Your task to perform on an android device: Open Google Chrome and click the shortcut for Amazon.com Image 0: 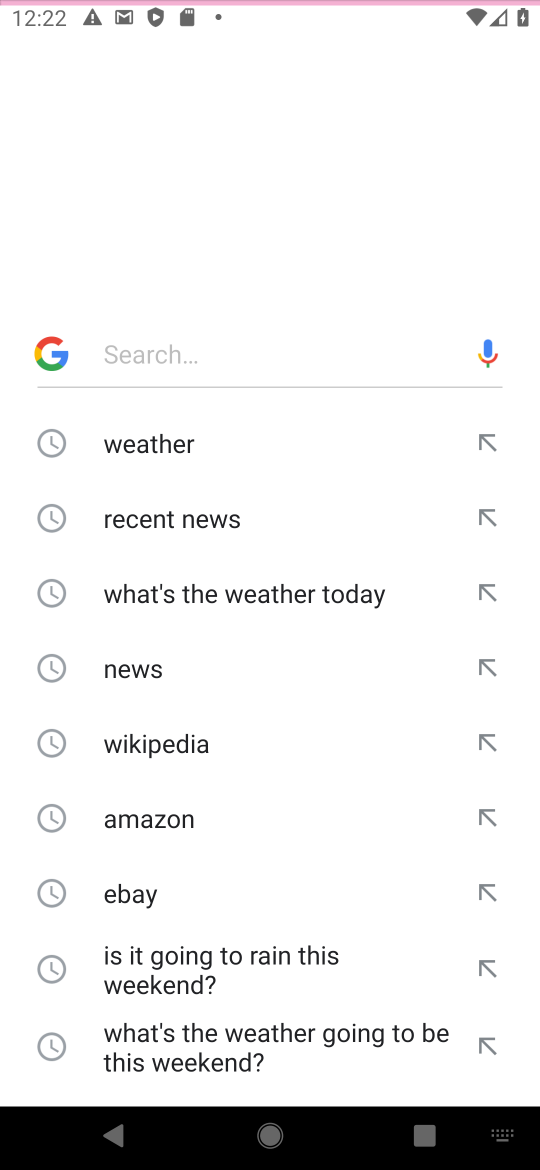
Step 0: click (264, 274)
Your task to perform on an android device: Open Google Chrome and click the shortcut for Amazon.com Image 1: 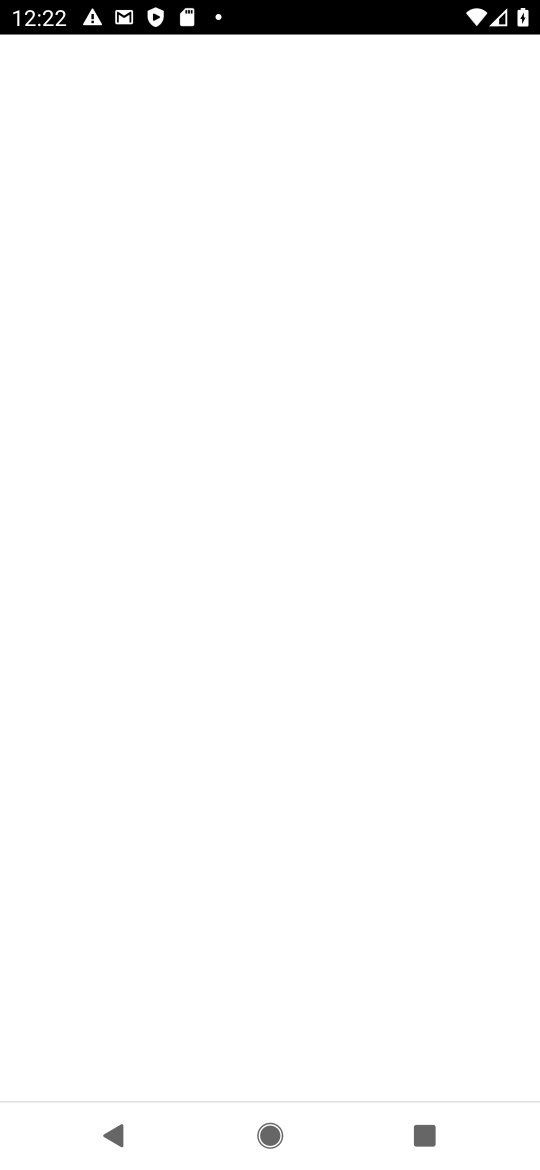
Step 1: drag from (259, 669) to (255, 557)
Your task to perform on an android device: Open Google Chrome and click the shortcut for Amazon.com Image 2: 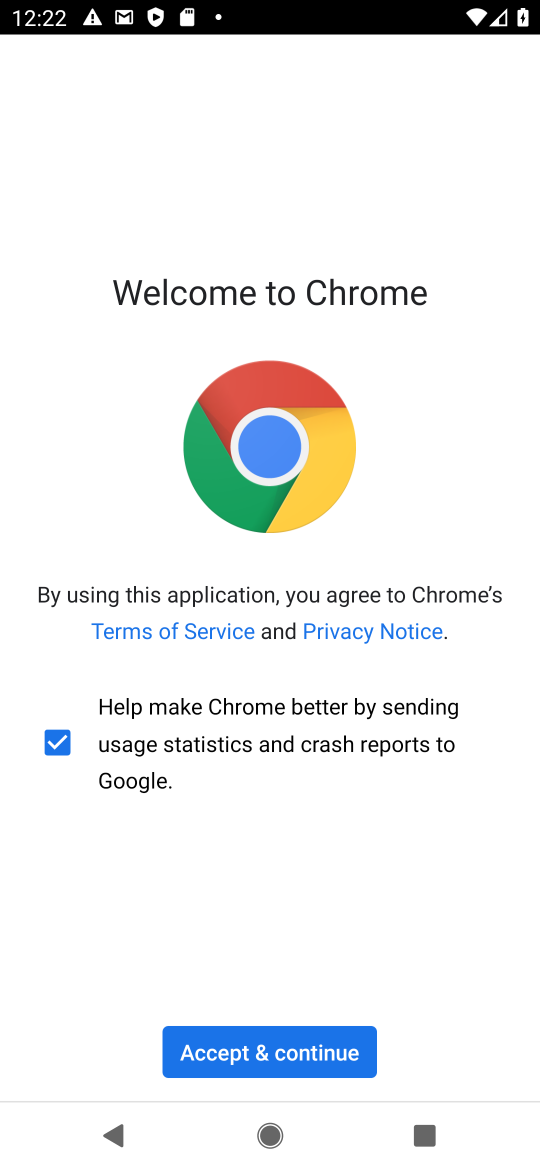
Step 2: drag from (255, 867) to (249, 434)
Your task to perform on an android device: Open Google Chrome and click the shortcut for Amazon.com Image 3: 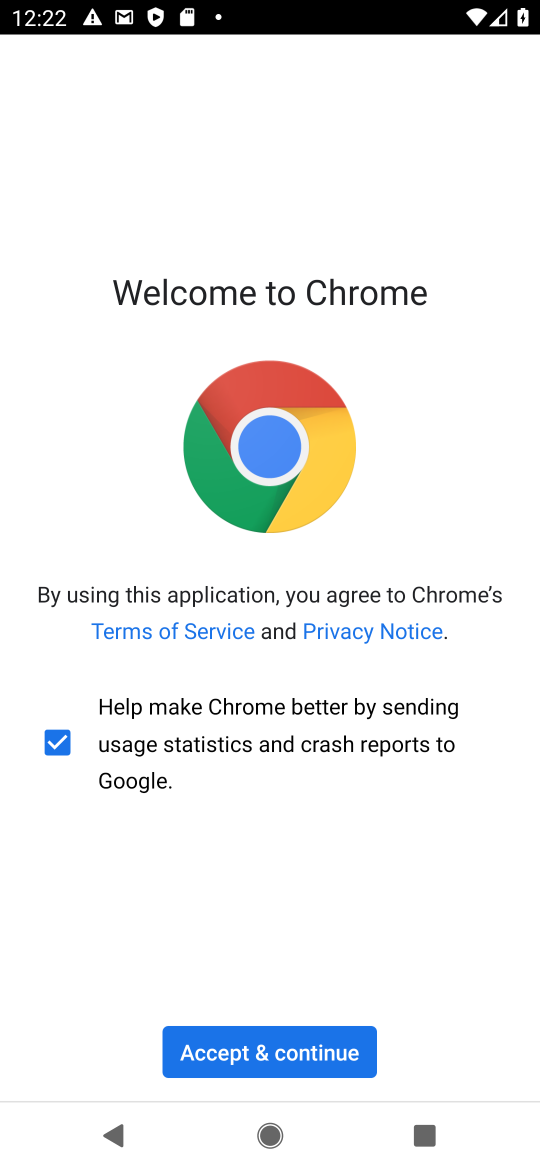
Step 3: press home button
Your task to perform on an android device: Open Google Chrome and click the shortcut for Amazon.com Image 4: 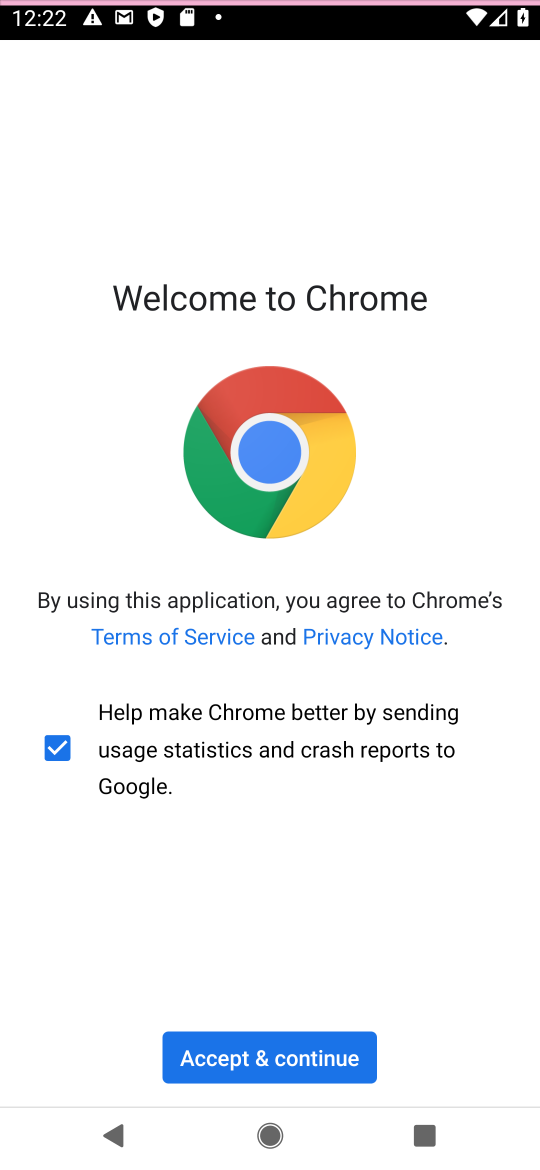
Step 4: drag from (257, 795) to (291, 202)
Your task to perform on an android device: Open Google Chrome and click the shortcut for Amazon.com Image 5: 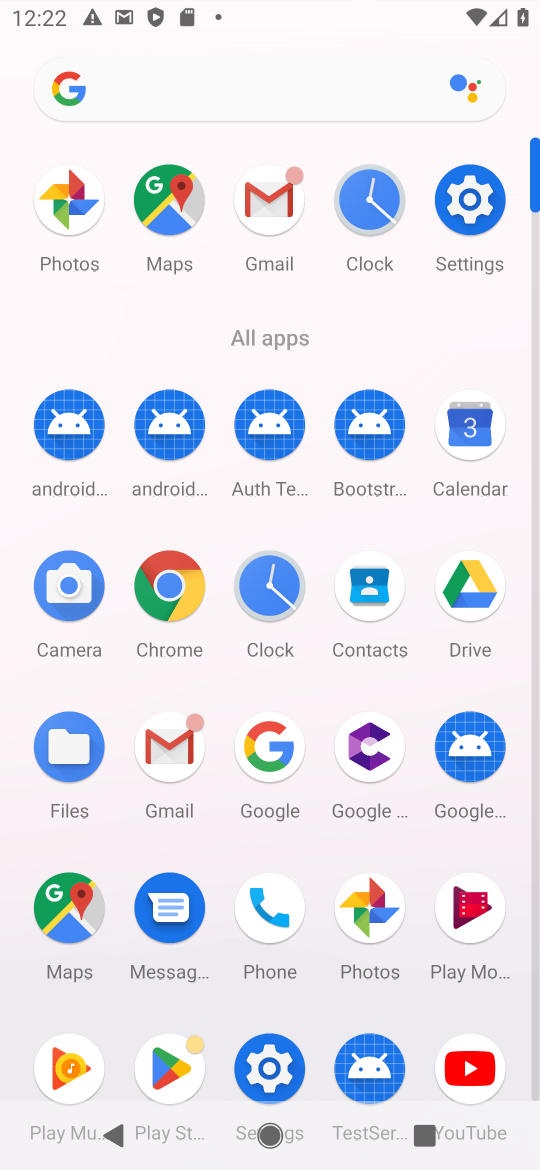
Step 5: click (162, 589)
Your task to perform on an android device: Open Google Chrome and click the shortcut for Amazon.com Image 6: 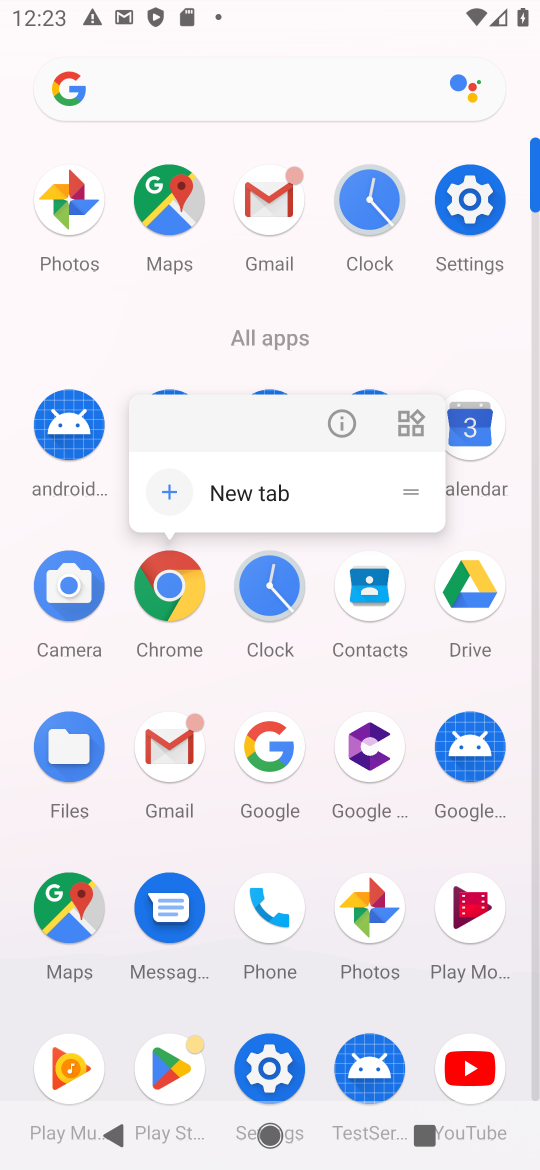
Step 6: click (341, 429)
Your task to perform on an android device: Open Google Chrome and click the shortcut for Amazon.com Image 7: 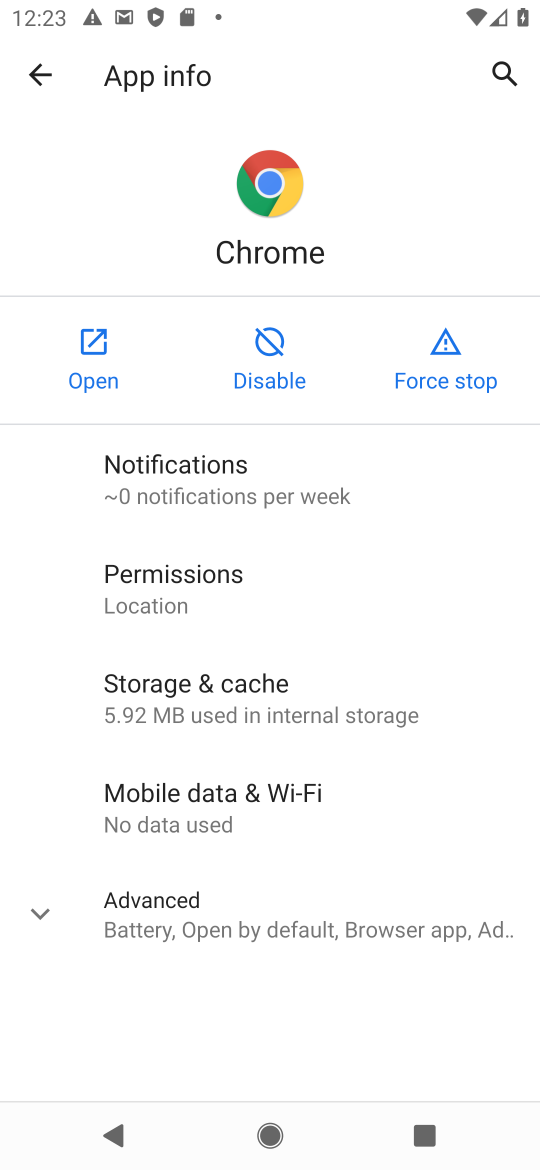
Step 7: click (112, 375)
Your task to perform on an android device: Open Google Chrome and click the shortcut for Amazon.com Image 8: 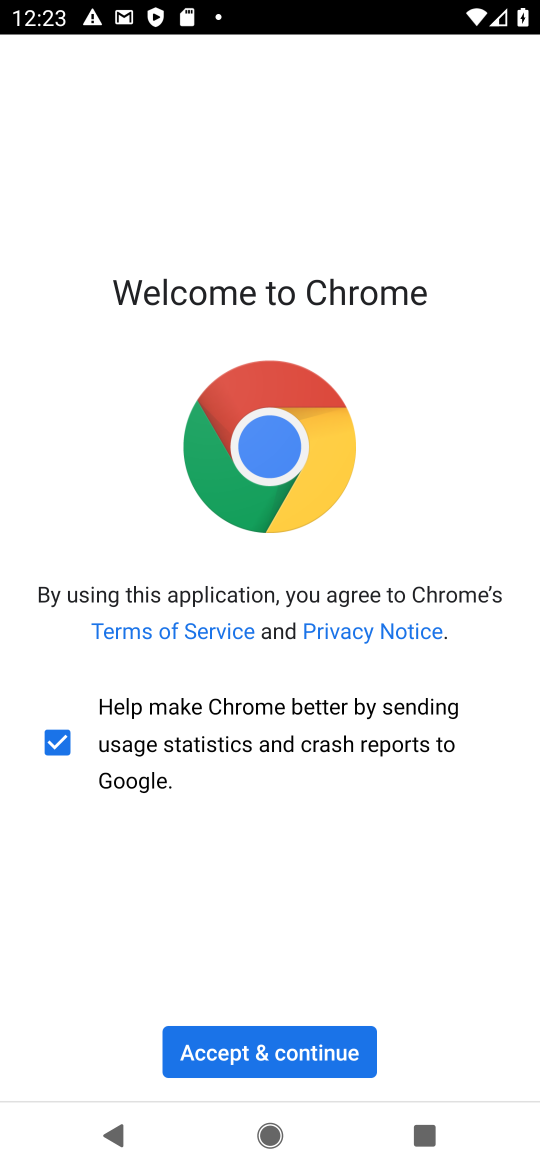
Step 8: drag from (111, 848) to (201, 396)
Your task to perform on an android device: Open Google Chrome and click the shortcut for Amazon.com Image 9: 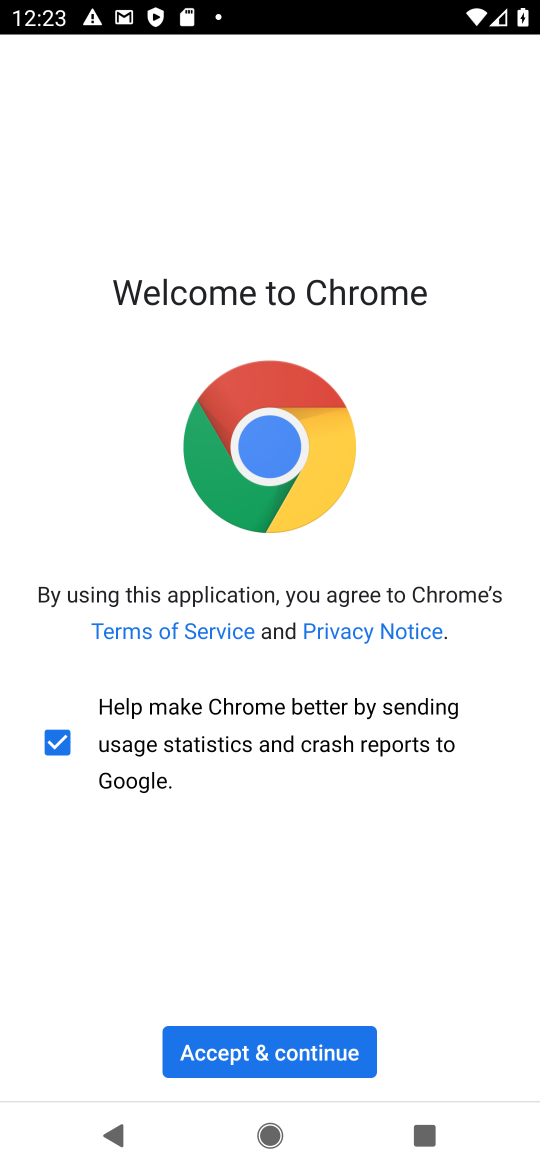
Step 9: drag from (350, 661) to (350, 70)
Your task to perform on an android device: Open Google Chrome and click the shortcut for Amazon.com Image 10: 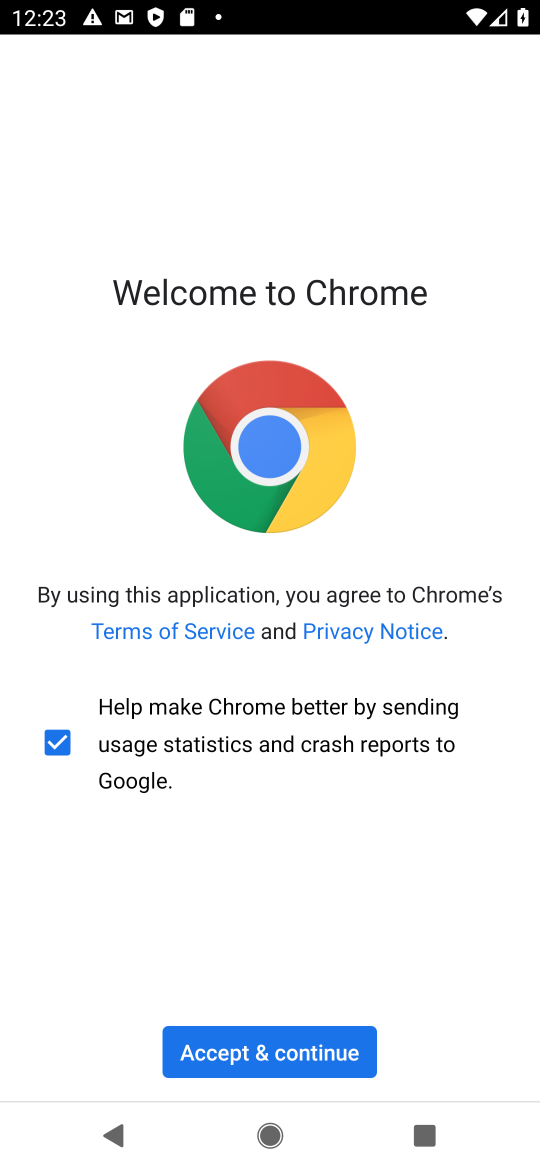
Step 10: drag from (411, 817) to (294, 246)
Your task to perform on an android device: Open Google Chrome and click the shortcut for Amazon.com Image 11: 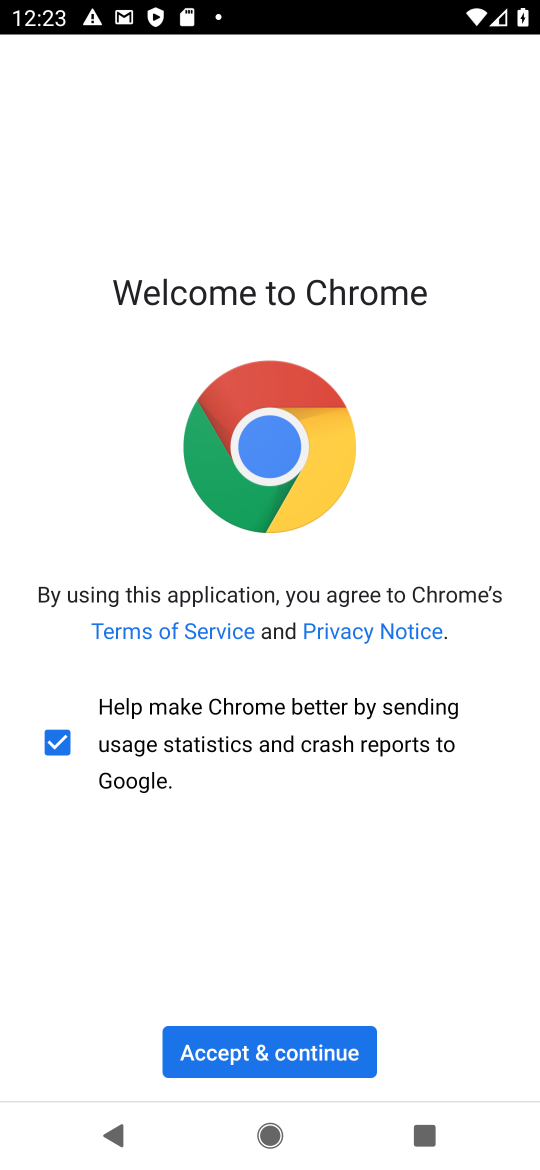
Step 11: drag from (276, 879) to (303, 539)
Your task to perform on an android device: Open Google Chrome and click the shortcut for Amazon.com Image 12: 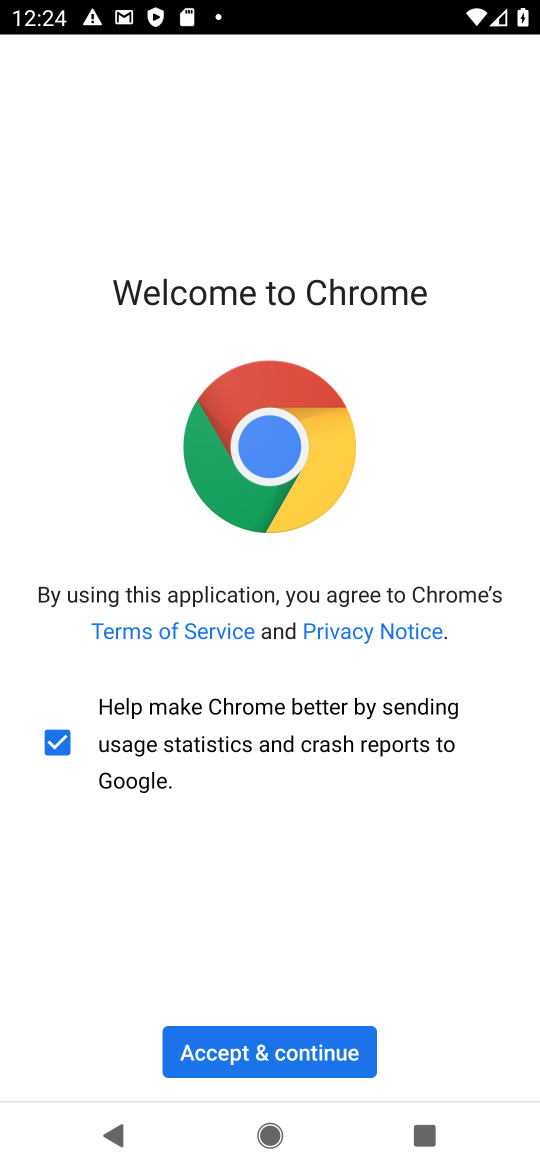
Step 12: drag from (254, 892) to (295, 555)
Your task to perform on an android device: Open Google Chrome and click the shortcut for Amazon.com Image 13: 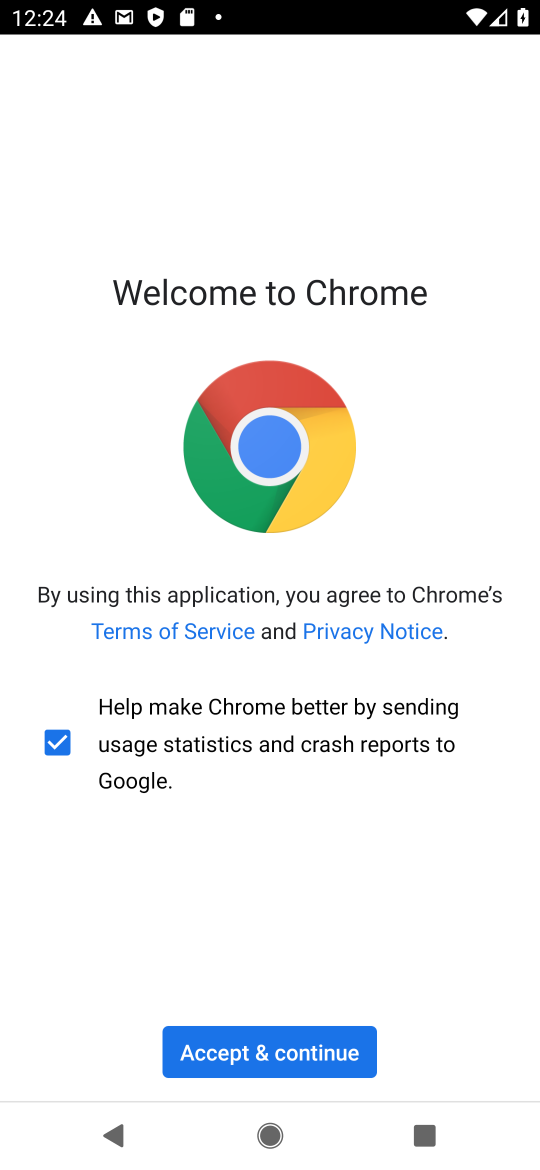
Step 13: drag from (255, 339) to (317, 899)
Your task to perform on an android device: Open Google Chrome and click the shortcut for Amazon.com Image 14: 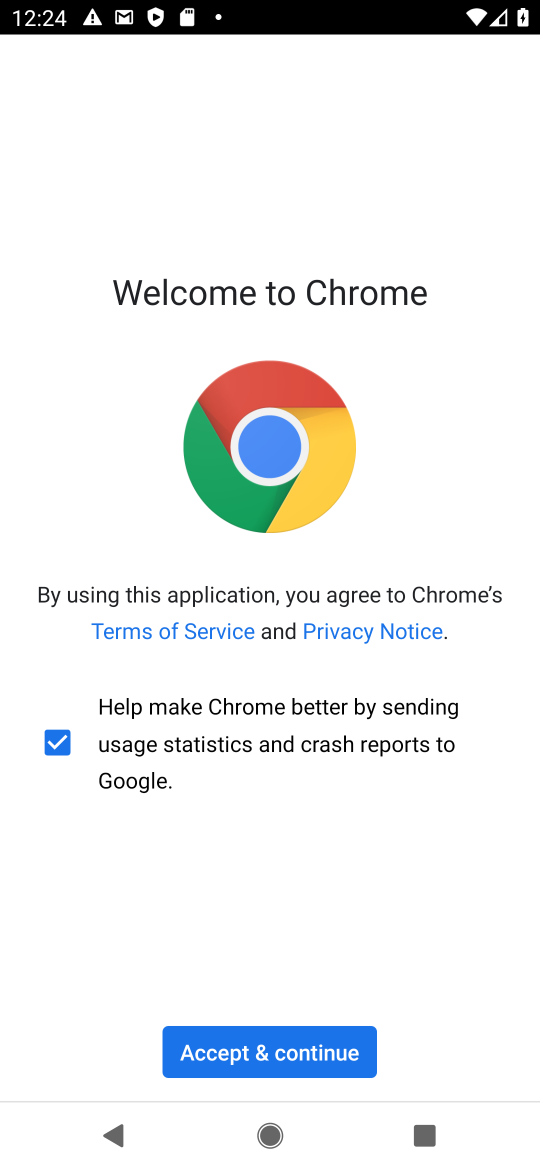
Step 14: drag from (371, 723) to (350, 345)
Your task to perform on an android device: Open Google Chrome and click the shortcut for Amazon.com Image 15: 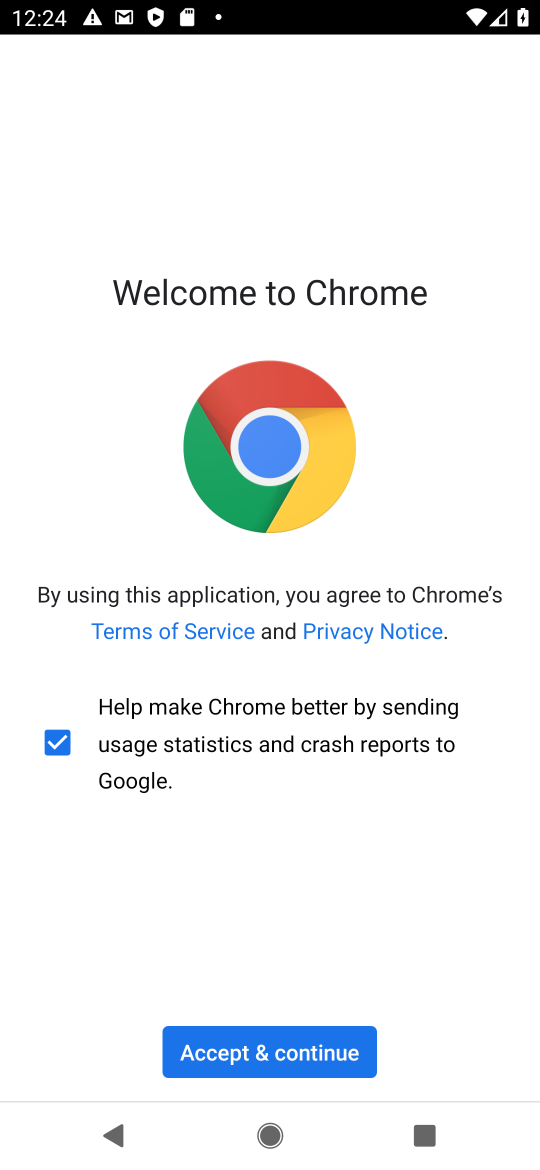
Step 15: click (259, 1044)
Your task to perform on an android device: Open Google Chrome and click the shortcut for Amazon.com Image 16: 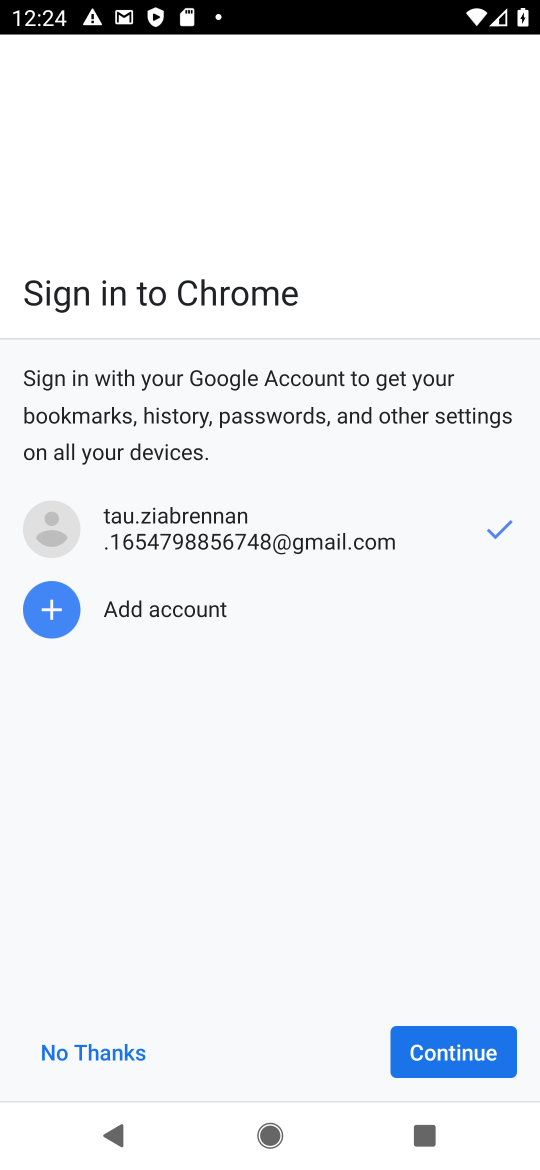
Step 16: drag from (272, 1043) to (364, 350)
Your task to perform on an android device: Open Google Chrome and click the shortcut for Amazon.com Image 17: 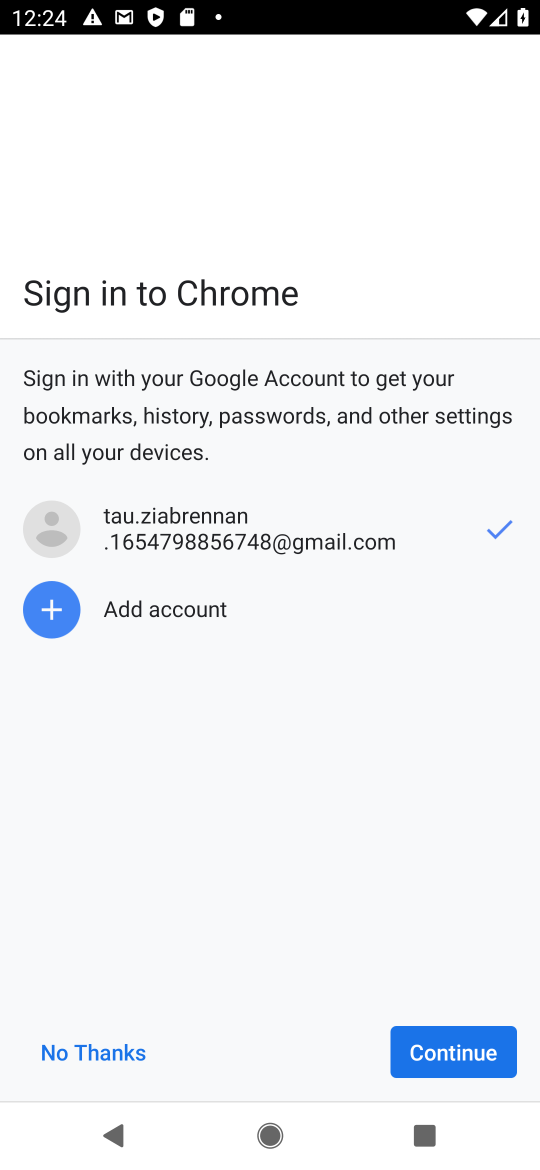
Step 17: drag from (211, 423) to (188, 260)
Your task to perform on an android device: Open Google Chrome and click the shortcut for Amazon.com Image 18: 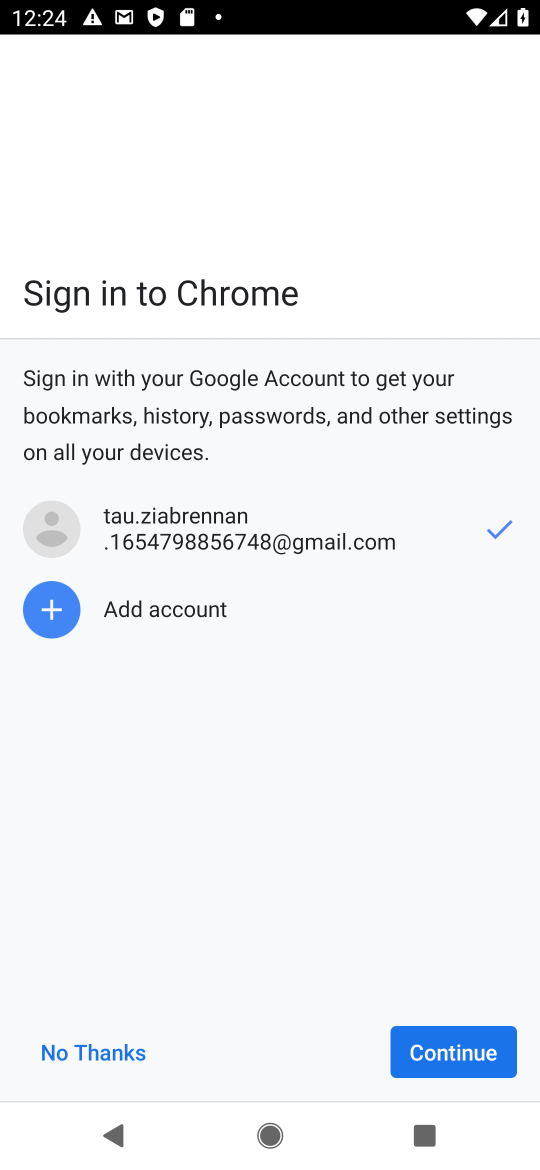
Step 18: drag from (328, 1032) to (203, 179)
Your task to perform on an android device: Open Google Chrome and click the shortcut for Amazon.com Image 19: 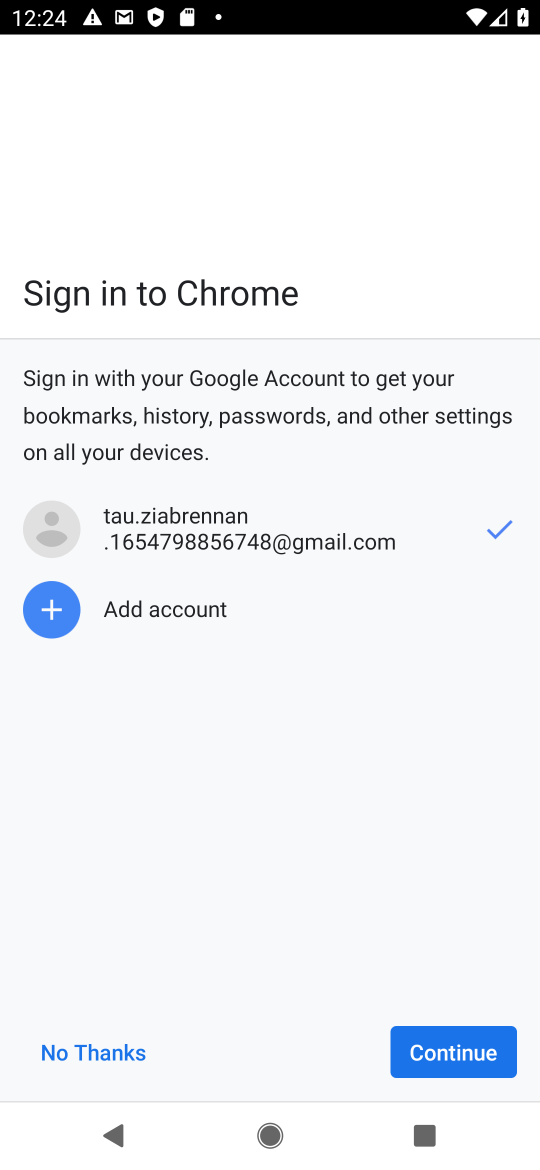
Step 19: drag from (189, 896) to (276, 250)
Your task to perform on an android device: Open Google Chrome and click the shortcut for Amazon.com Image 20: 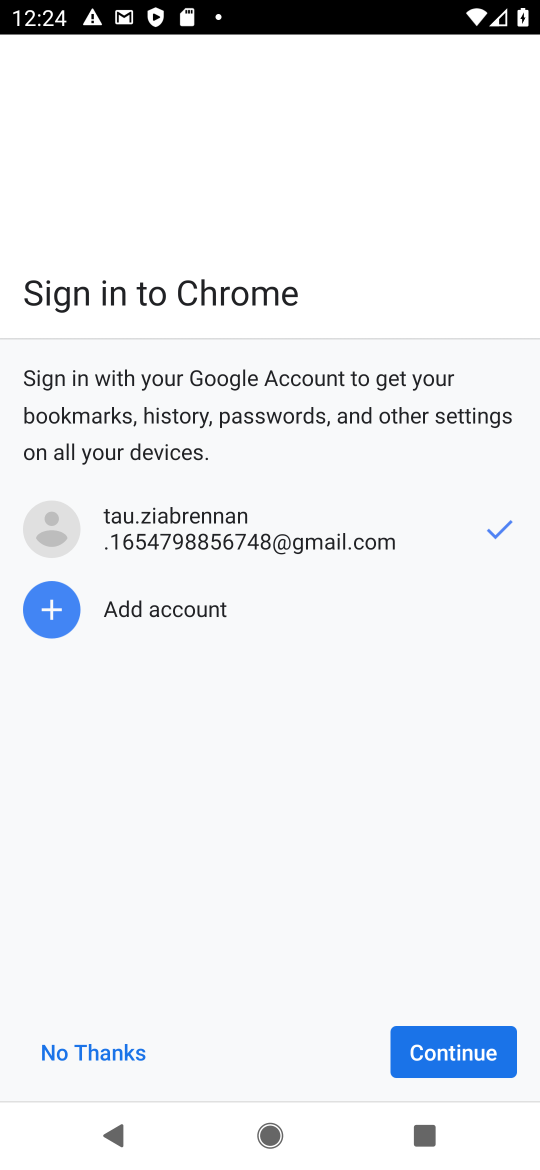
Step 20: drag from (291, 464) to (366, 1010)
Your task to perform on an android device: Open Google Chrome and click the shortcut for Amazon.com Image 21: 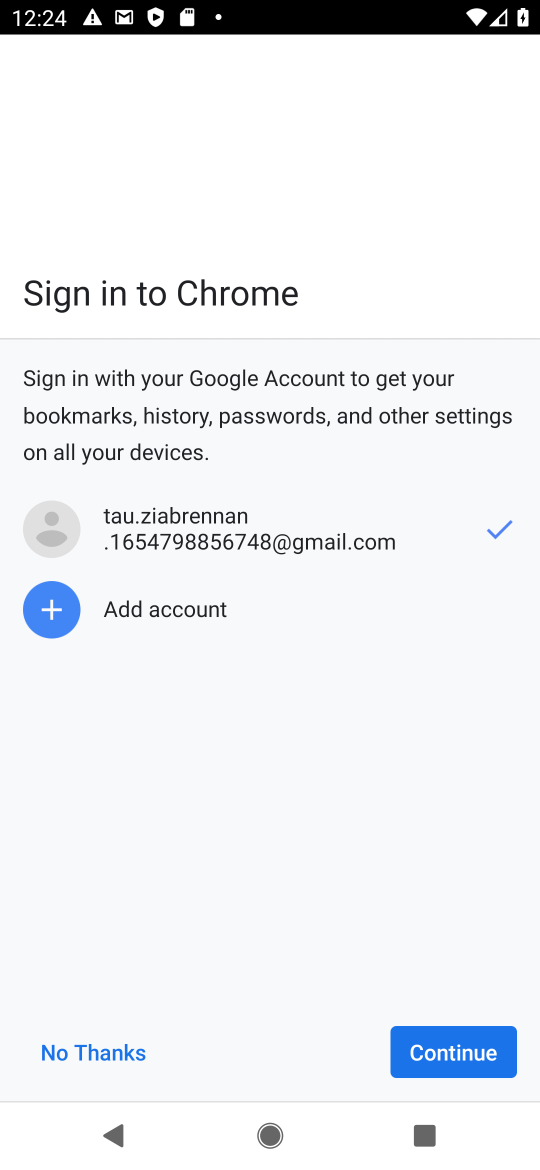
Step 21: drag from (375, 1041) to (239, 221)
Your task to perform on an android device: Open Google Chrome and click the shortcut for Amazon.com Image 22: 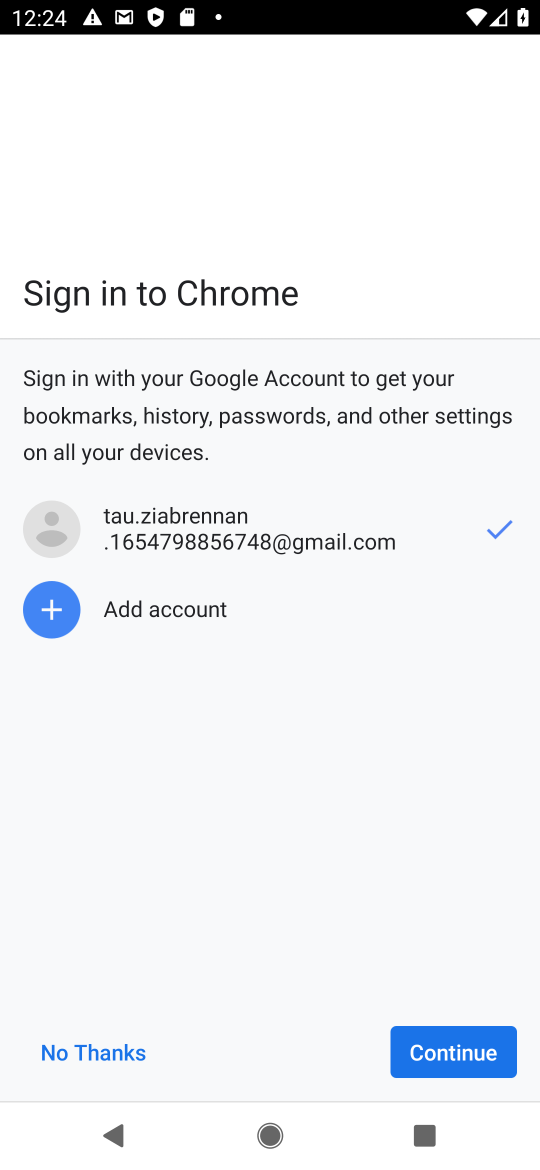
Step 22: click (446, 1045)
Your task to perform on an android device: Open Google Chrome and click the shortcut for Amazon.com Image 23: 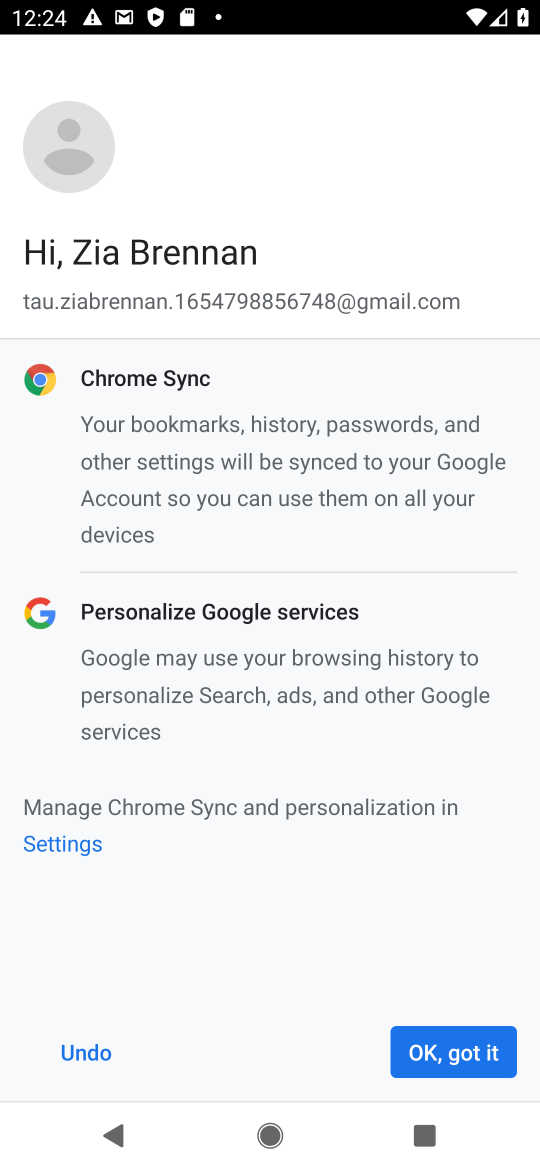
Step 23: click (447, 1043)
Your task to perform on an android device: Open Google Chrome and click the shortcut for Amazon.com Image 24: 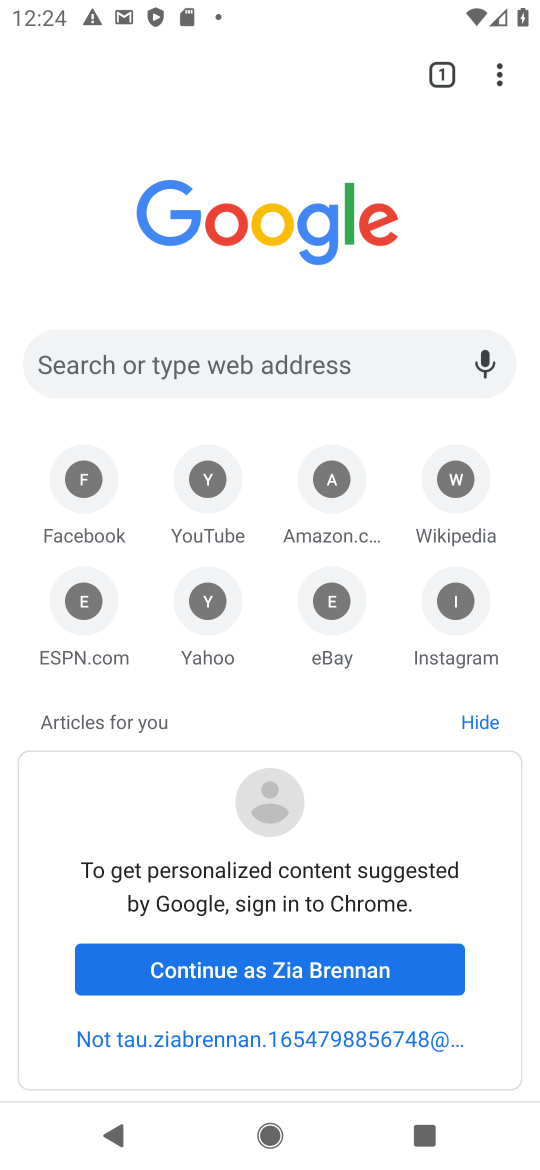
Step 24: drag from (286, 997) to (260, 460)
Your task to perform on an android device: Open Google Chrome and click the shortcut for Amazon.com Image 25: 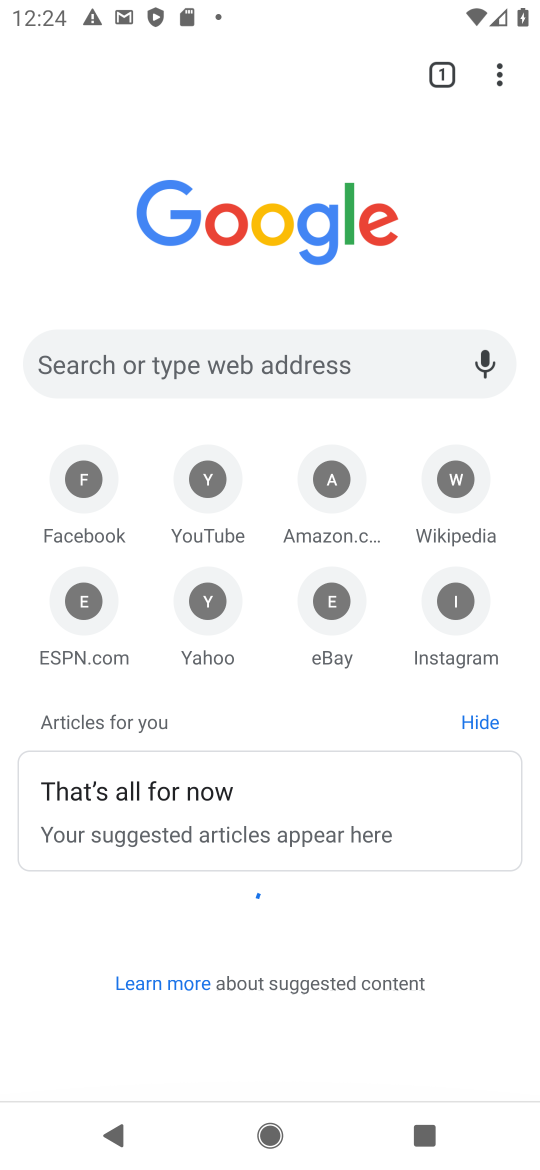
Step 25: drag from (311, 585) to (377, 1110)
Your task to perform on an android device: Open Google Chrome and click the shortcut for Amazon.com Image 26: 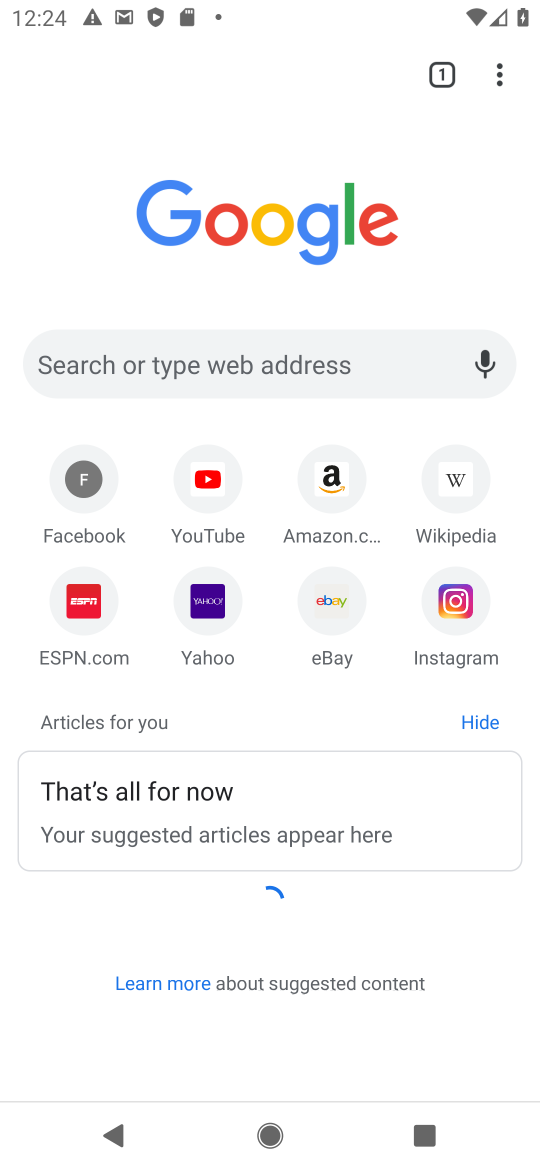
Step 26: drag from (255, 785) to (272, 489)
Your task to perform on an android device: Open Google Chrome and click the shortcut for Amazon.com Image 27: 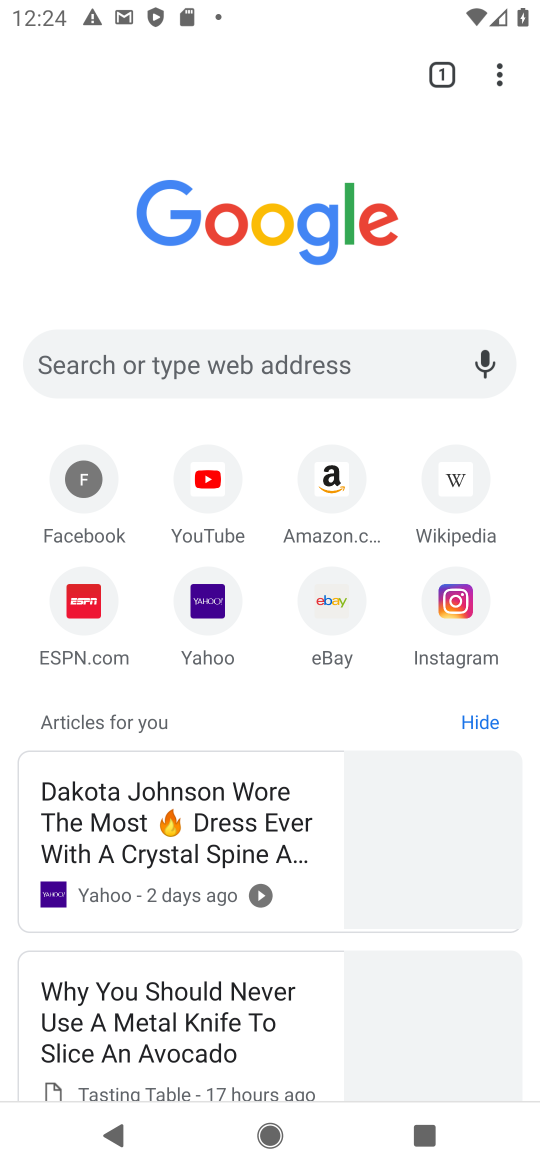
Step 27: drag from (259, 689) to (275, 476)
Your task to perform on an android device: Open Google Chrome and click the shortcut for Amazon.com Image 28: 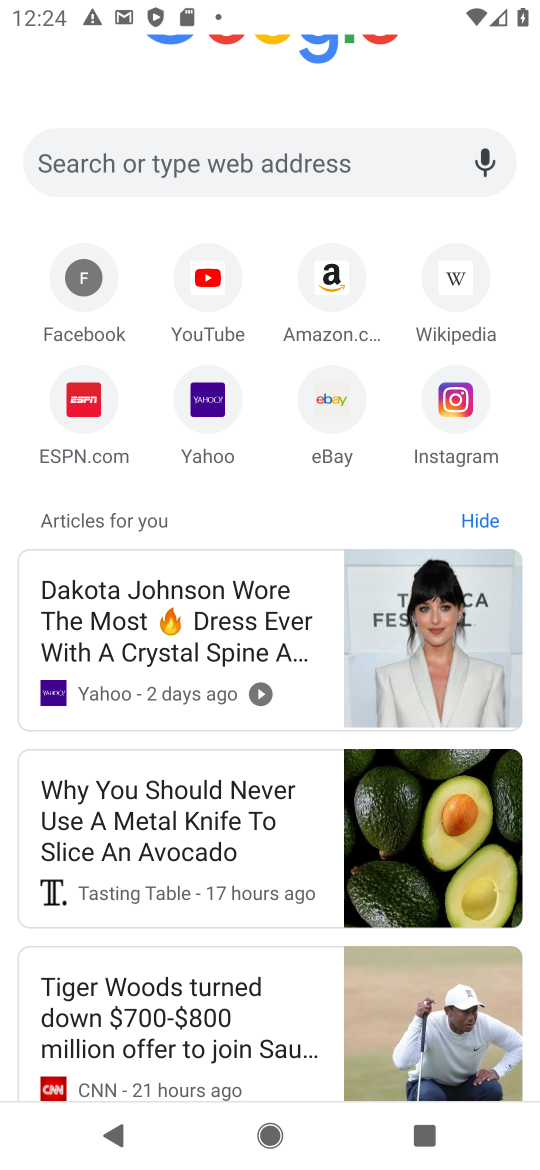
Step 28: drag from (279, 855) to (329, 484)
Your task to perform on an android device: Open Google Chrome and click the shortcut for Amazon.com Image 29: 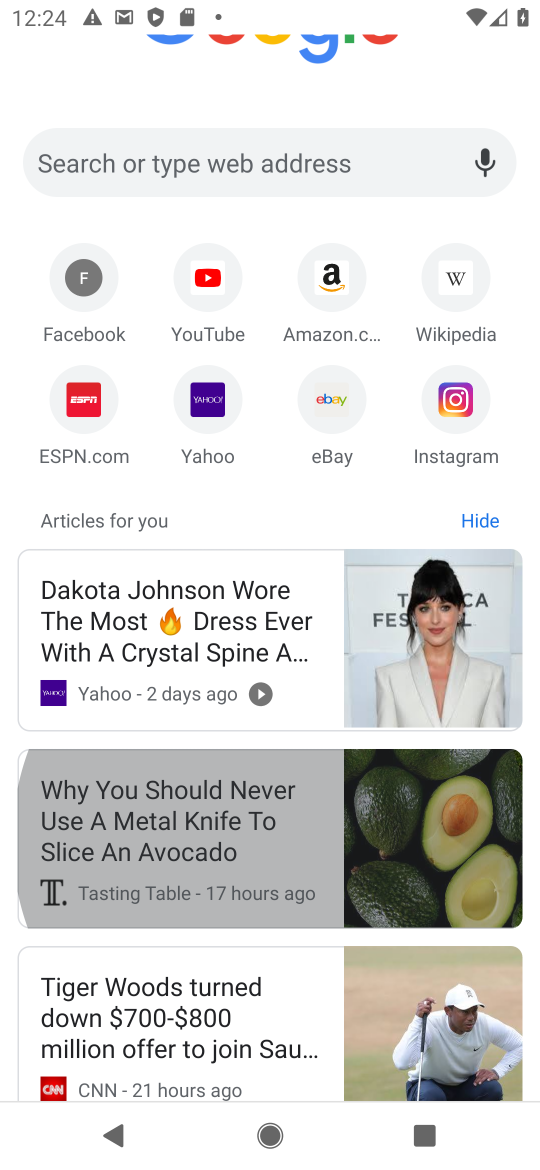
Step 29: drag from (313, 397) to (332, 1166)
Your task to perform on an android device: Open Google Chrome and click the shortcut for Amazon.com Image 30: 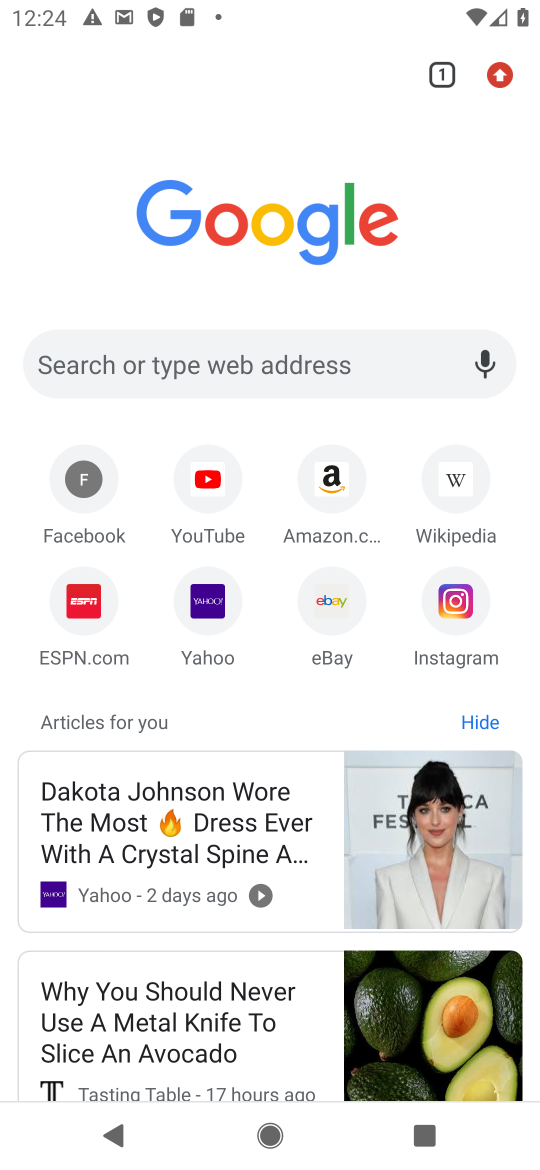
Step 30: click (319, 478)
Your task to perform on an android device: Open Google Chrome and click the shortcut for Amazon.com Image 31: 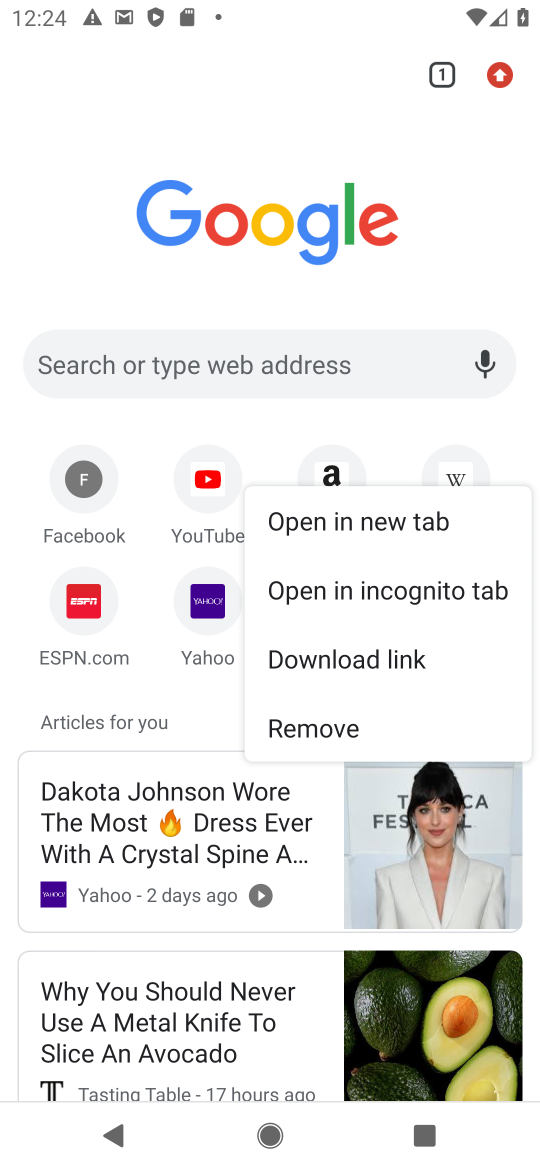
Step 31: click (311, 477)
Your task to perform on an android device: Open Google Chrome and click the shortcut for Amazon.com Image 32: 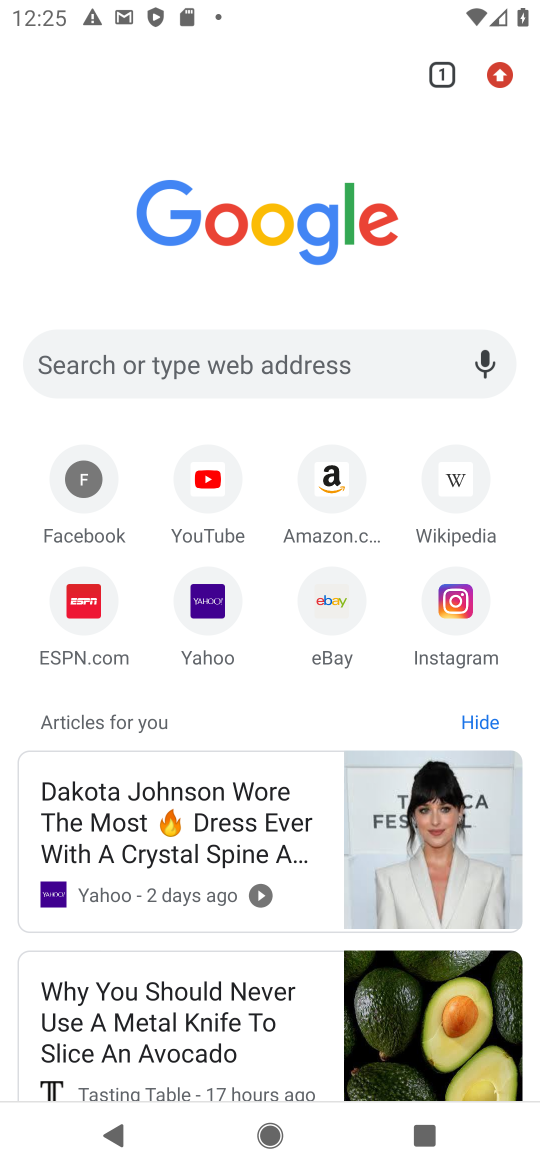
Step 32: click (351, 469)
Your task to perform on an android device: Open Google Chrome and click the shortcut for Amazon.com Image 33: 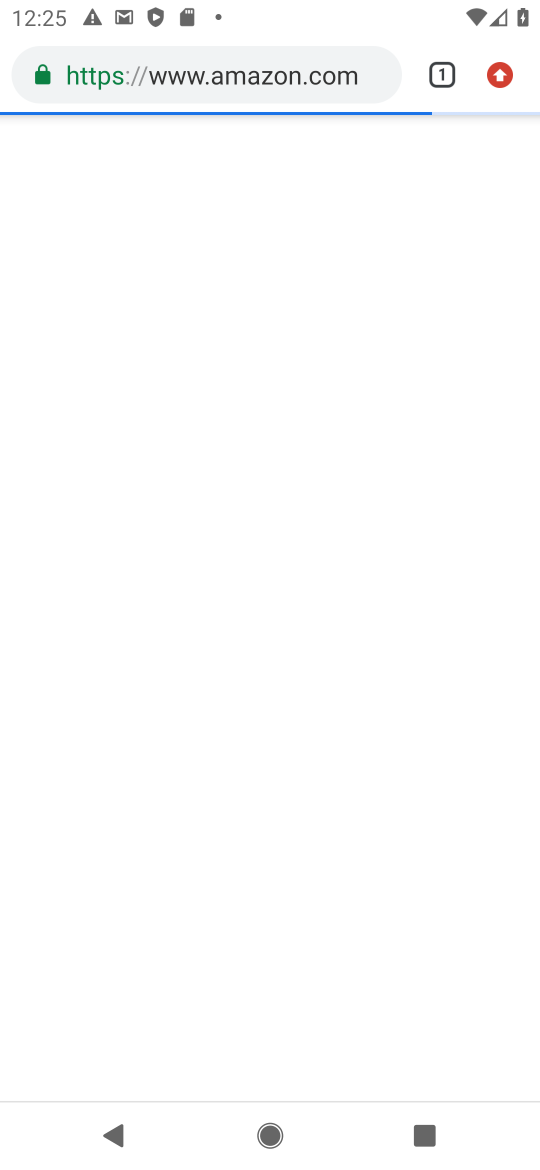
Step 33: task complete